Your task to perform on an android device: Open Maps and search for coffee Image 0: 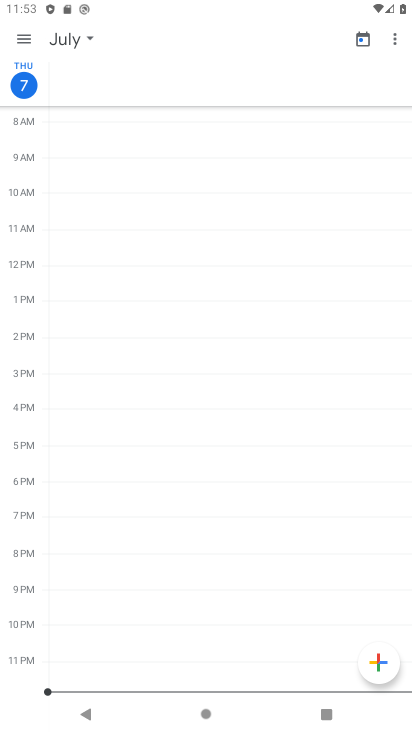
Step 0: press home button
Your task to perform on an android device: Open Maps and search for coffee Image 1: 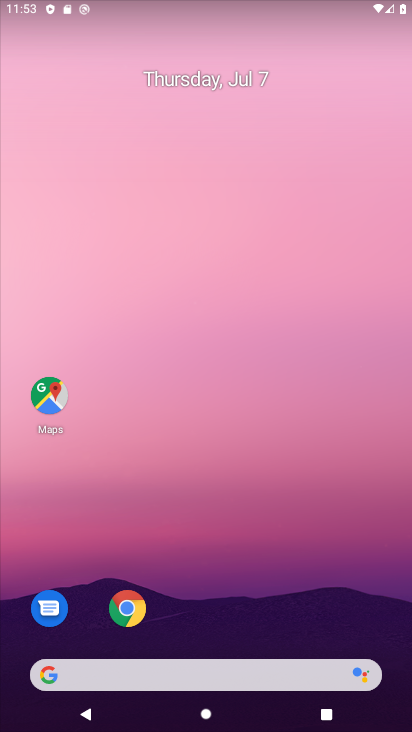
Step 1: drag from (285, 610) to (90, 34)
Your task to perform on an android device: Open Maps and search for coffee Image 2: 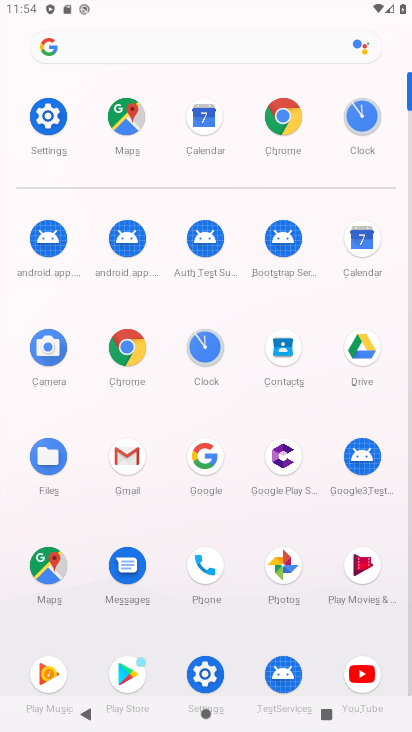
Step 2: click (144, 119)
Your task to perform on an android device: Open Maps and search for coffee Image 3: 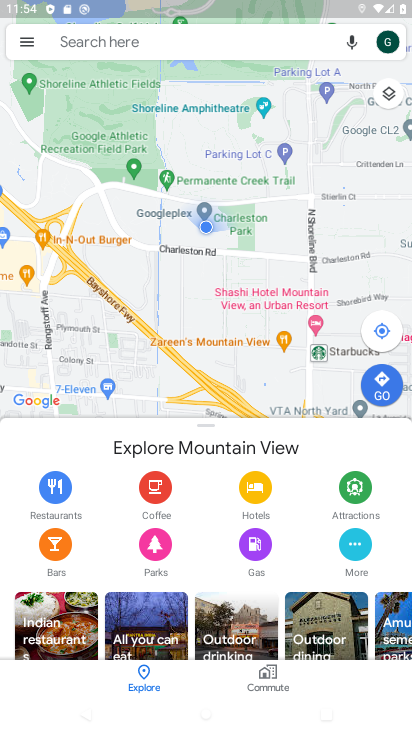
Step 3: click (160, 47)
Your task to perform on an android device: Open Maps and search for coffee Image 4: 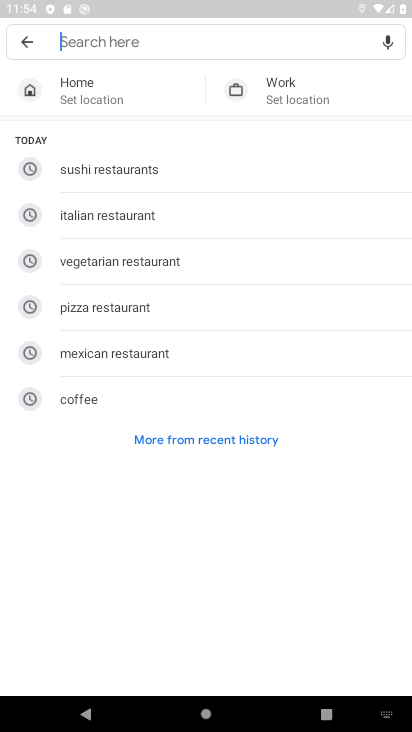
Step 4: click (243, 396)
Your task to perform on an android device: Open Maps and search for coffee Image 5: 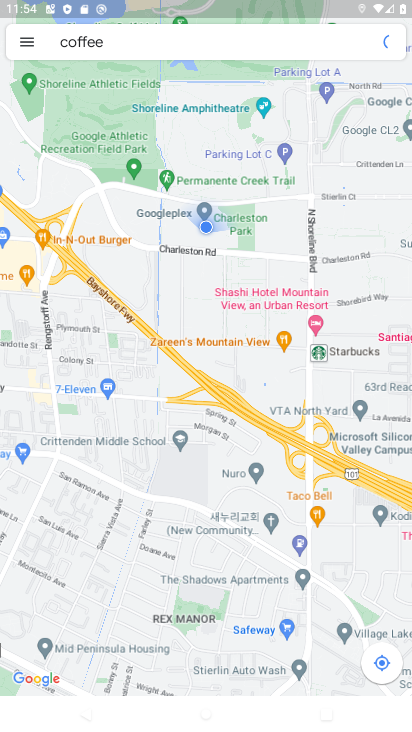
Step 5: task complete